Your task to perform on an android device: change text size in settings app Image 0: 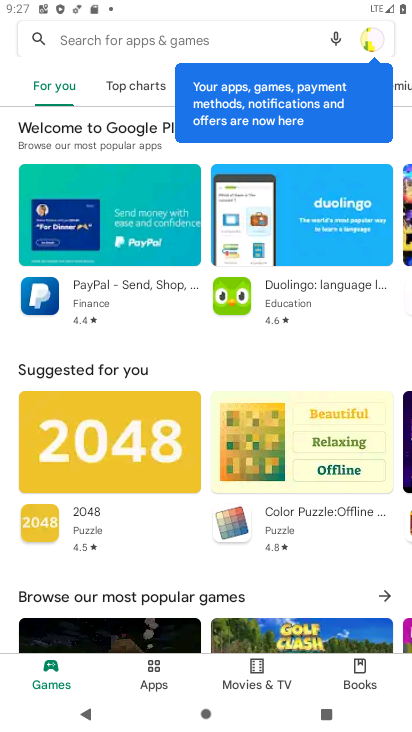
Step 0: press home button
Your task to perform on an android device: change text size in settings app Image 1: 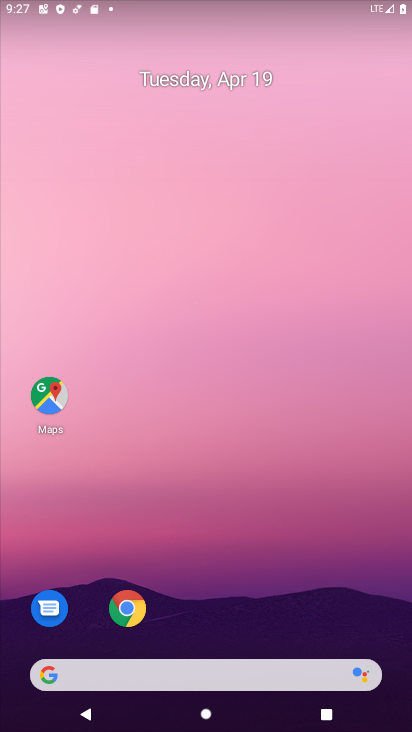
Step 1: drag from (321, 628) to (242, 148)
Your task to perform on an android device: change text size in settings app Image 2: 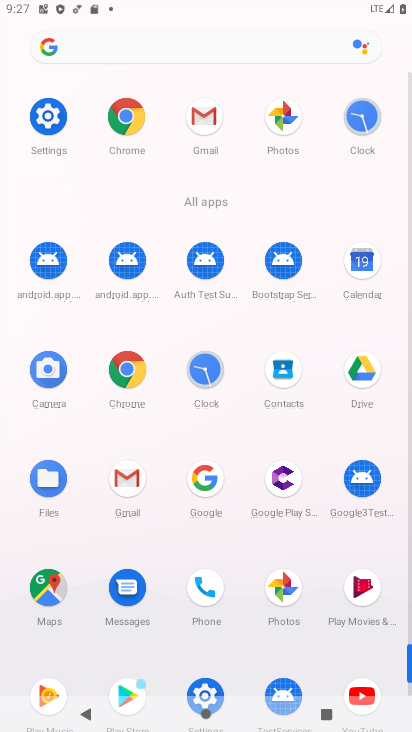
Step 2: click (410, 634)
Your task to perform on an android device: change text size in settings app Image 3: 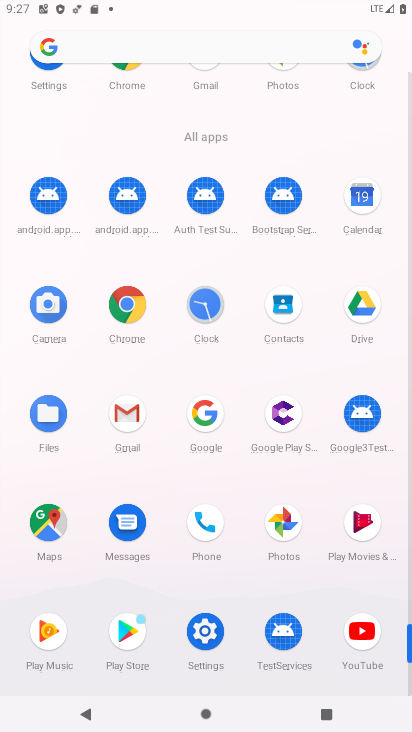
Step 3: click (204, 629)
Your task to perform on an android device: change text size in settings app Image 4: 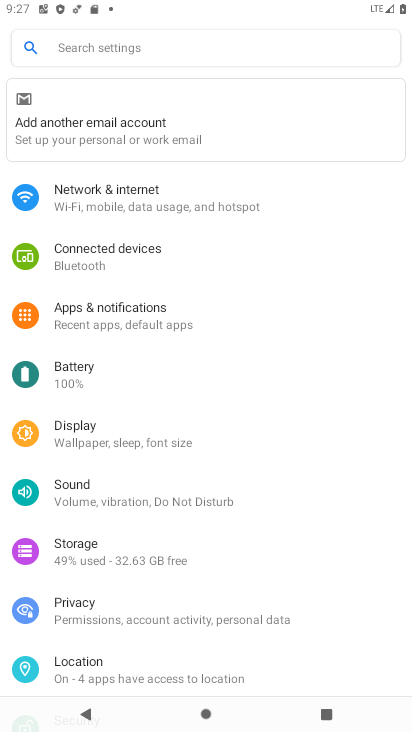
Step 4: click (70, 430)
Your task to perform on an android device: change text size in settings app Image 5: 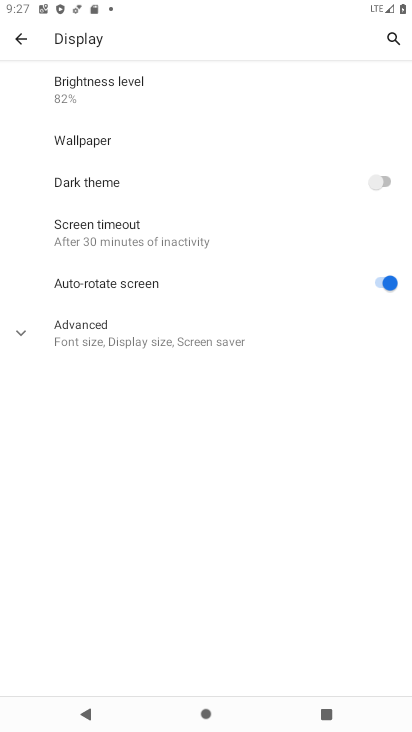
Step 5: click (20, 329)
Your task to perform on an android device: change text size in settings app Image 6: 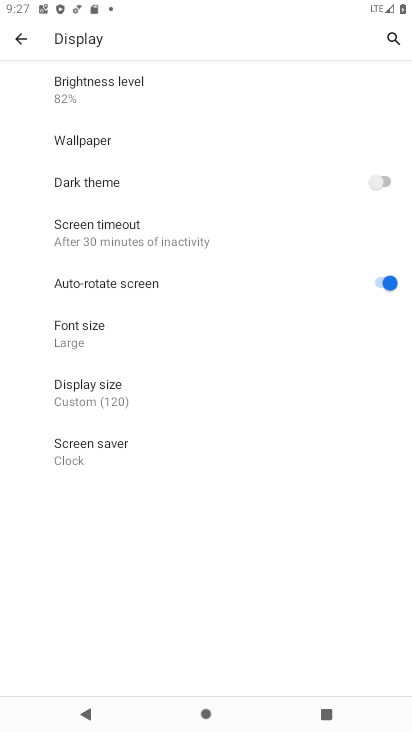
Step 6: click (66, 332)
Your task to perform on an android device: change text size in settings app Image 7: 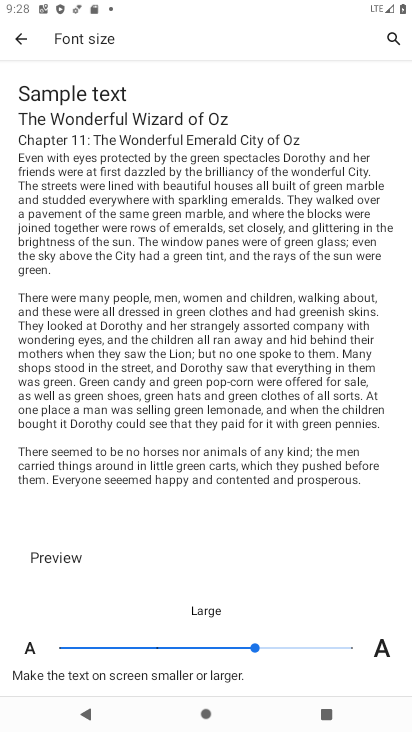
Step 7: click (165, 648)
Your task to perform on an android device: change text size in settings app Image 8: 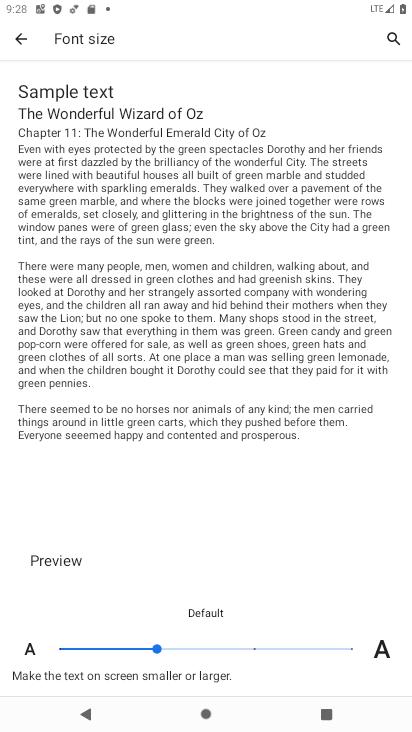
Step 8: task complete